Your task to perform on an android device: When is my next meeting? Image 0: 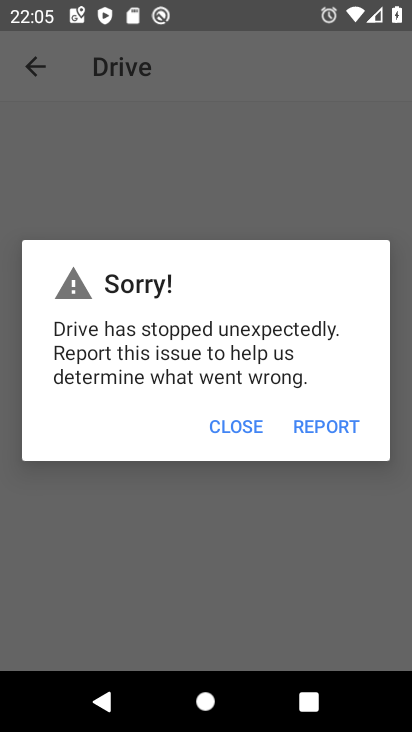
Step 0: click (249, 65)
Your task to perform on an android device: When is my next meeting? Image 1: 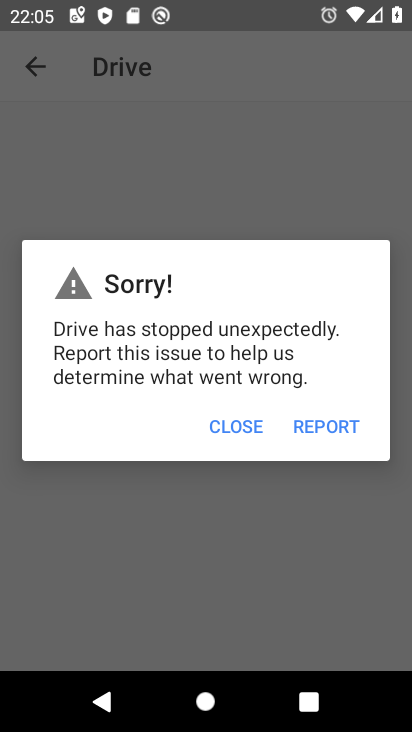
Step 1: press home button
Your task to perform on an android device: When is my next meeting? Image 2: 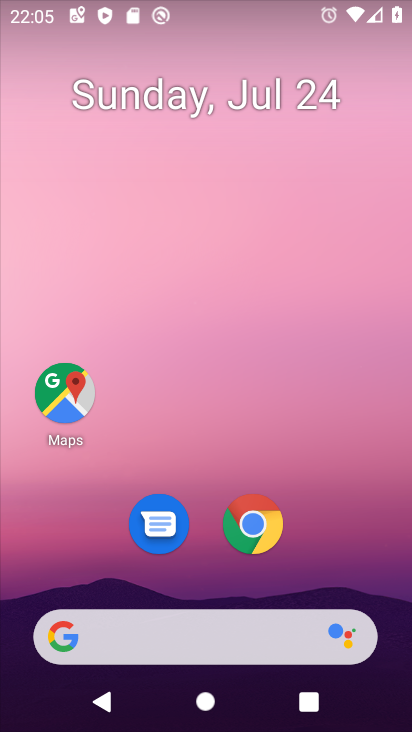
Step 2: drag from (202, 645) to (251, 267)
Your task to perform on an android device: When is my next meeting? Image 3: 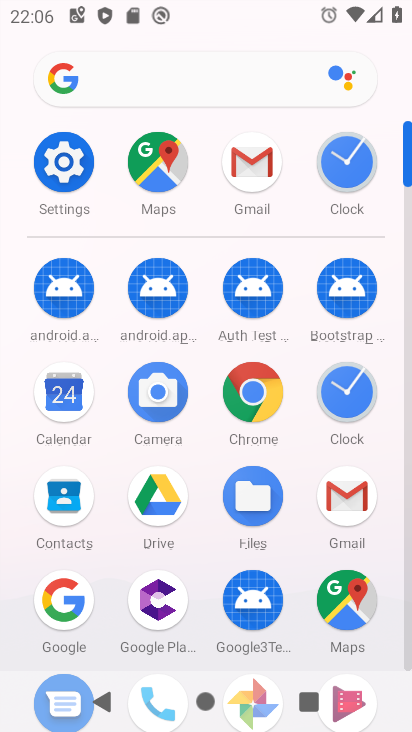
Step 3: click (69, 395)
Your task to perform on an android device: When is my next meeting? Image 4: 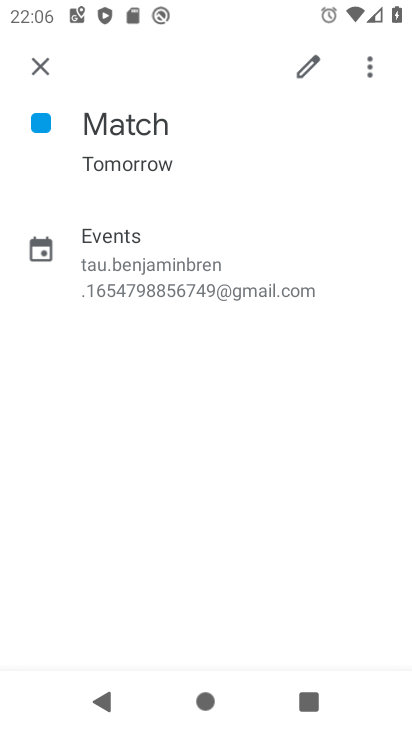
Step 4: click (32, 73)
Your task to perform on an android device: When is my next meeting? Image 5: 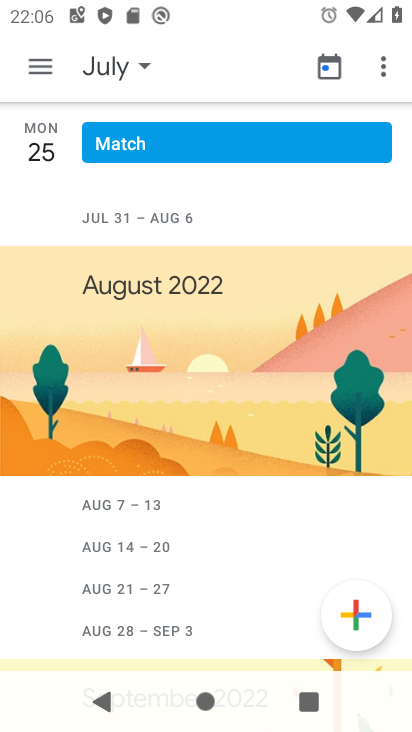
Step 5: task complete